Your task to perform on an android device: Open settings Image 0: 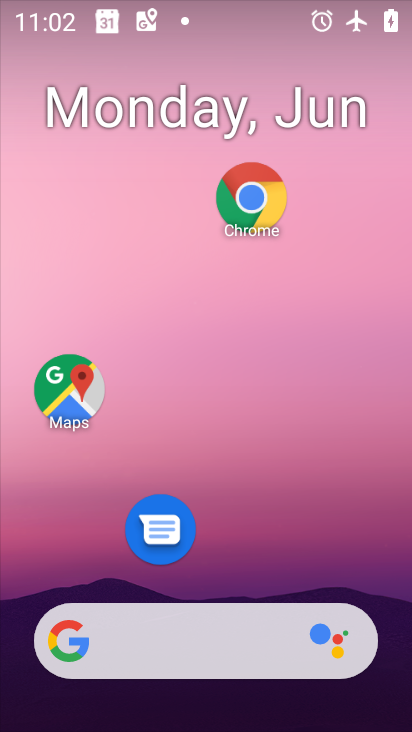
Step 0: drag from (241, 569) to (207, 175)
Your task to perform on an android device: Open settings Image 1: 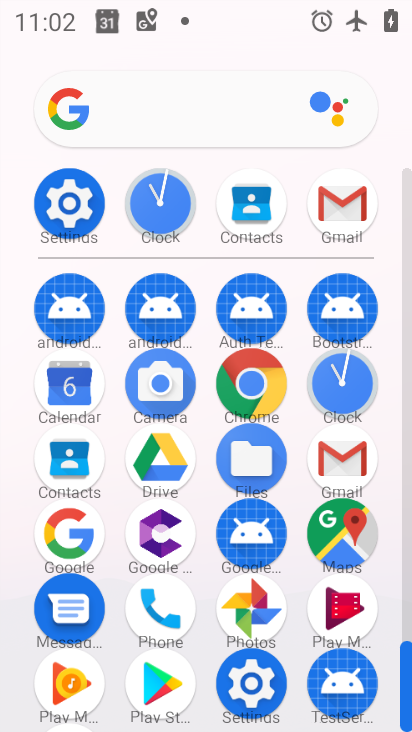
Step 1: click (82, 221)
Your task to perform on an android device: Open settings Image 2: 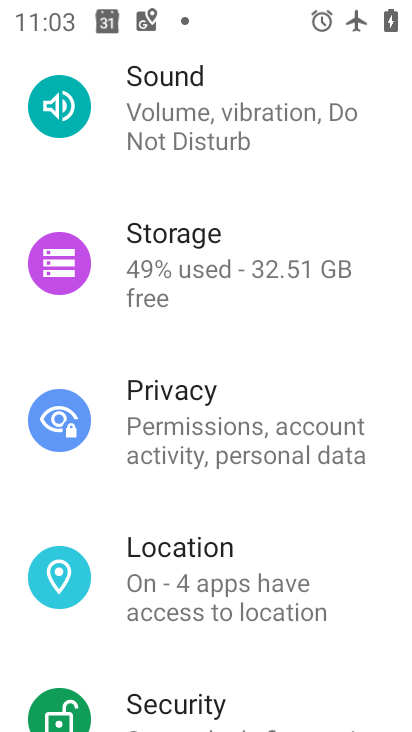
Step 2: task complete